Your task to perform on an android device: find which apps use the phone's location Image 0: 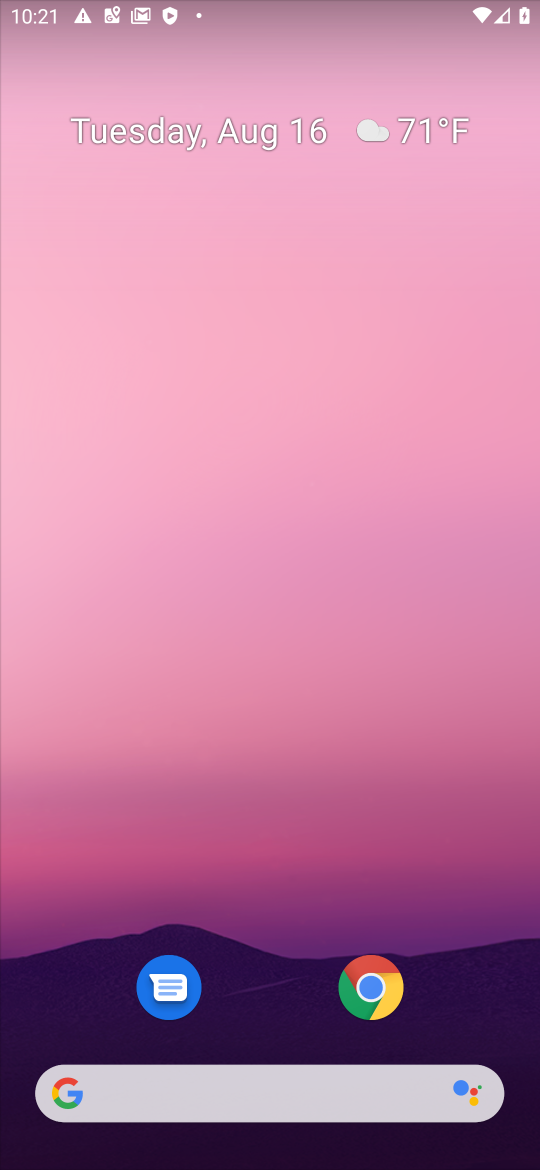
Step 0: drag from (49, 1138) to (266, 555)
Your task to perform on an android device: find which apps use the phone's location Image 1: 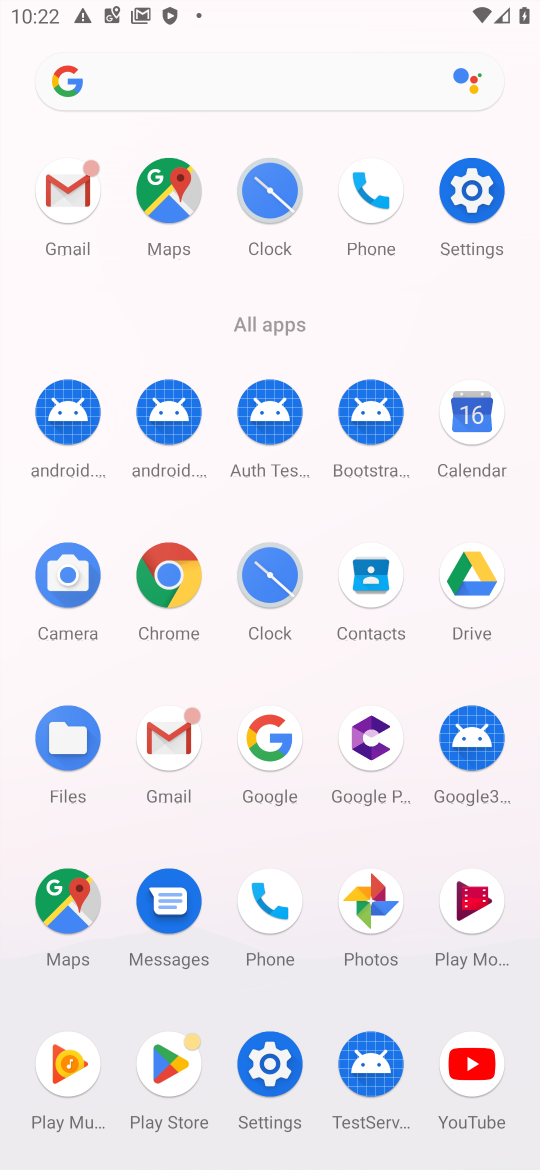
Step 1: click (278, 1057)
Your task to perform on an android device: find which apps use the phone's location Image 2: 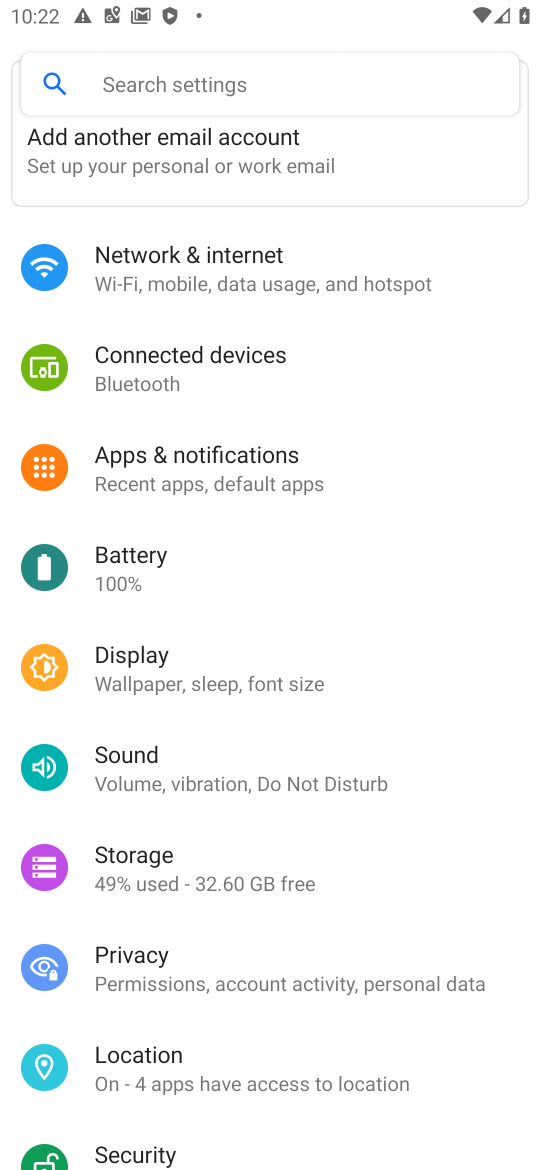
Step 2: click (324, 1060)
Your task to perform on an android device: find which apps use the phone's location Image 3: 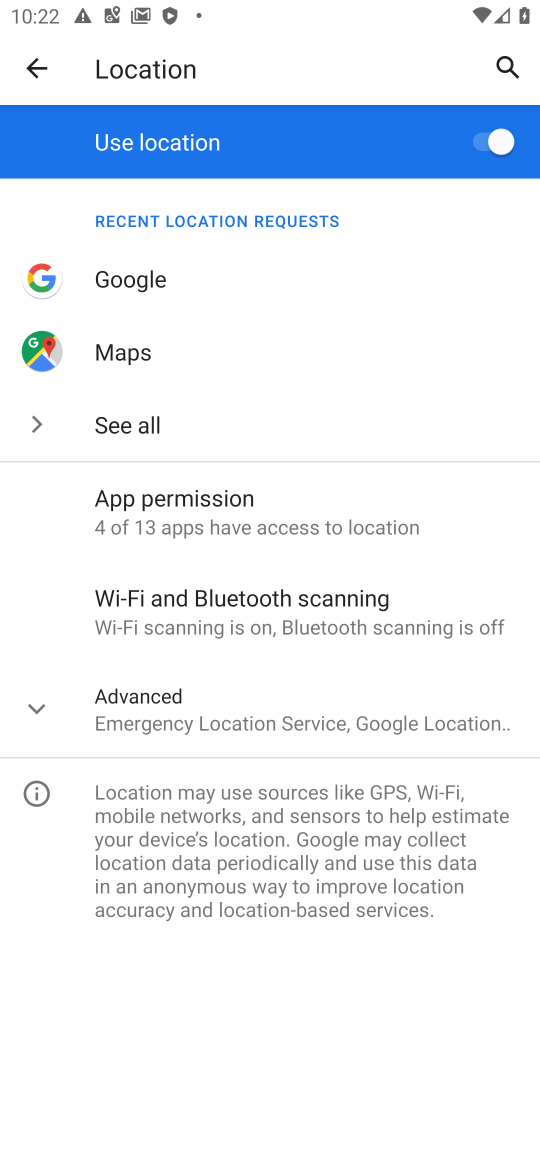
Step 3: click (195, 521)
Your task to perform on an android device: find which apps use the phone's location Image 4: 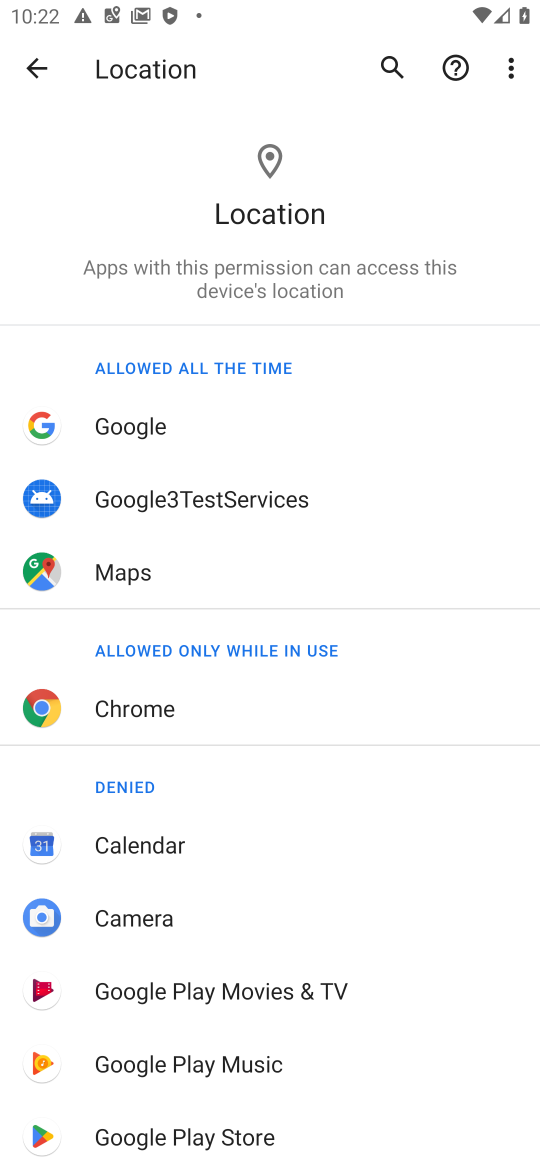
Step 4: task complete